Your task to perform on an android device: turn on showing notifications on the lock screen Image 0: 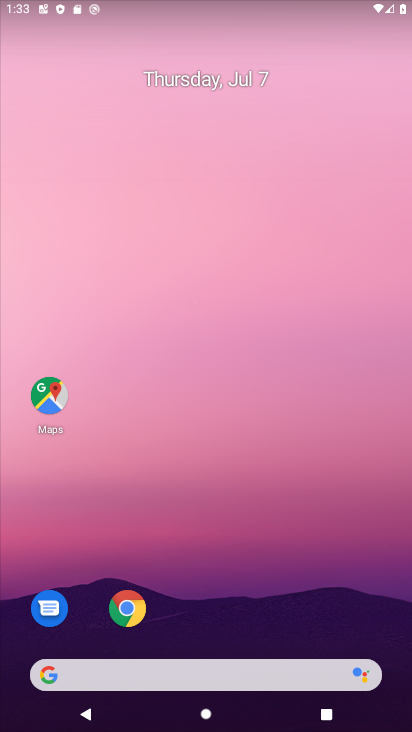
Step 0: drag from (287, 574) to (321, 45)
Your task to perform on an android device: turn on showing notifications on the lock screen Image 1: 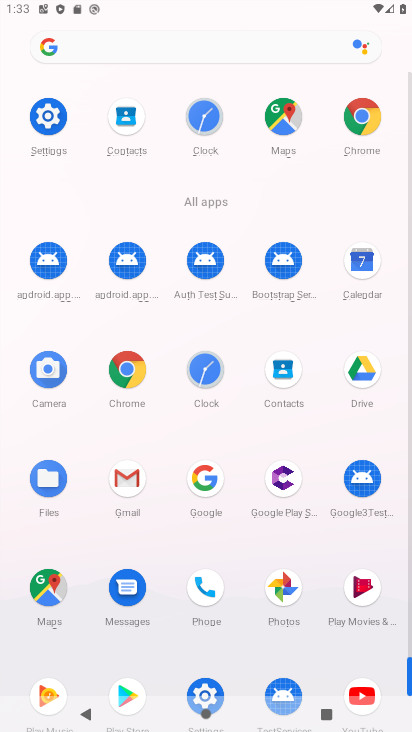
Step 1: click (53, 109)
Your task to perform on an android device: turn on showing notifications on the lock screen Image 2: 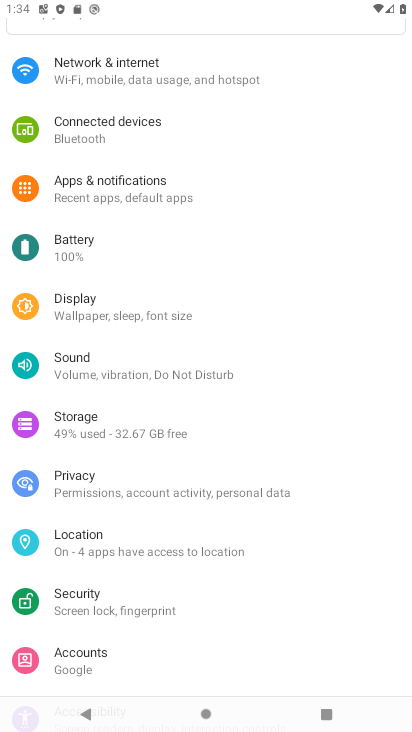
Step 2: click (155, 192)
Your task to perform on an android device: turn on showing notifications on the lock screen Image 3: 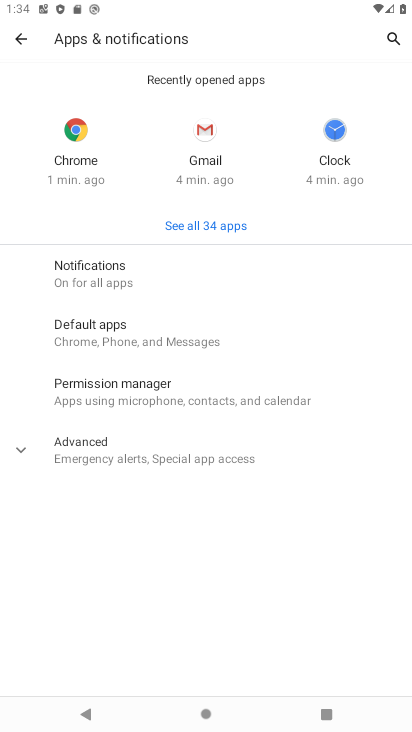
Step 3: click (113, 273)
Your task to perform on an android device: turn on showing notifications on the lock screen Image 4: 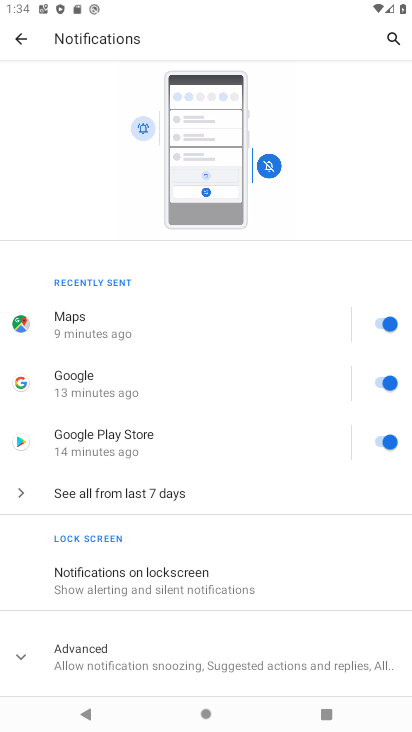
Step 4: click (272, 554)
Your task to perform on an android device: turn on showing notifications on the lock screen Image 5: 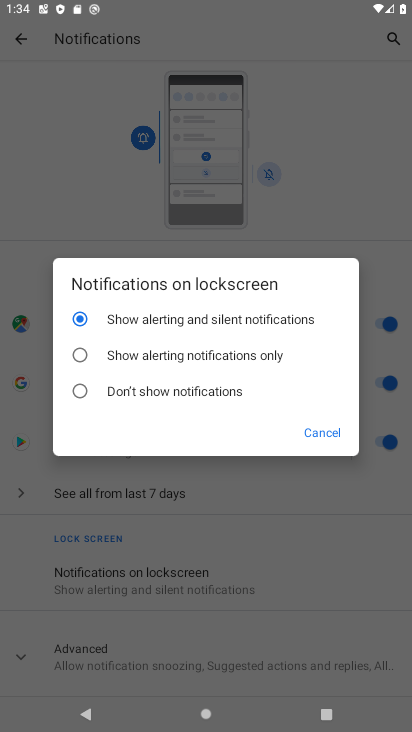
Step 5: task complete